Your task to perform on an android device: When is my next meeting? Image 0: 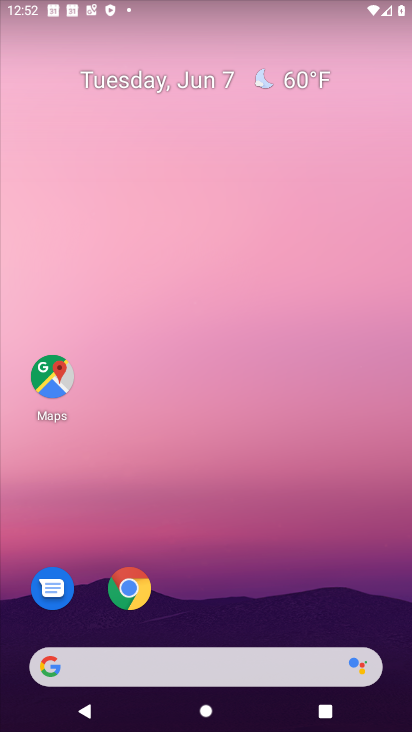
Step 0: drag from (289, 724) to (277, 199)
Your task to perform on an android device: When is my next meeting? Image 1: 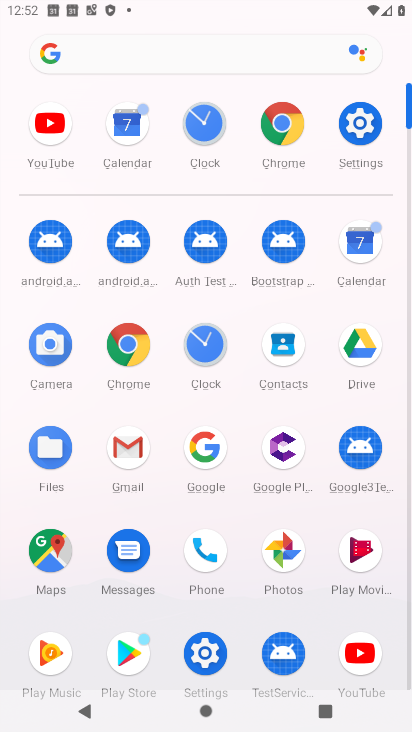
Step 1: click (364, 244)
Your task to perform on an android device: When is my next meeting? Image 2: 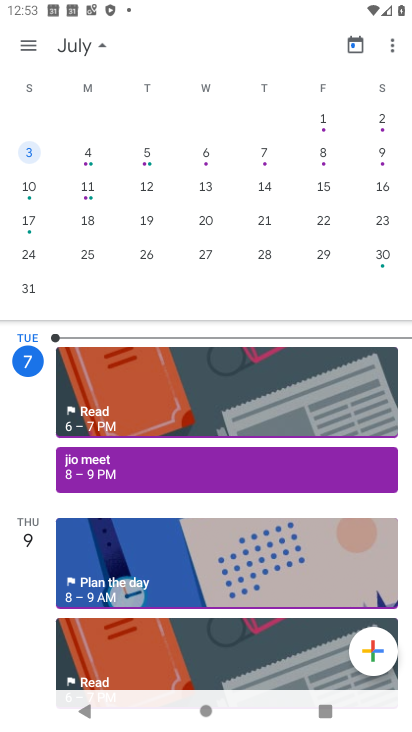
Step 2: drag from (48, 159) to (394, 271)
Your task to perform on an android device: When is my next meeting? Image 3: 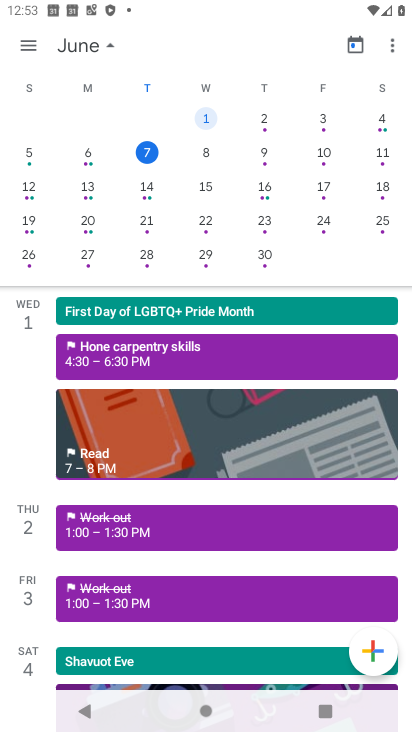
Step 3: click (25, 48)
Your task to perform on an android device: When is my next meeting? Image 4: 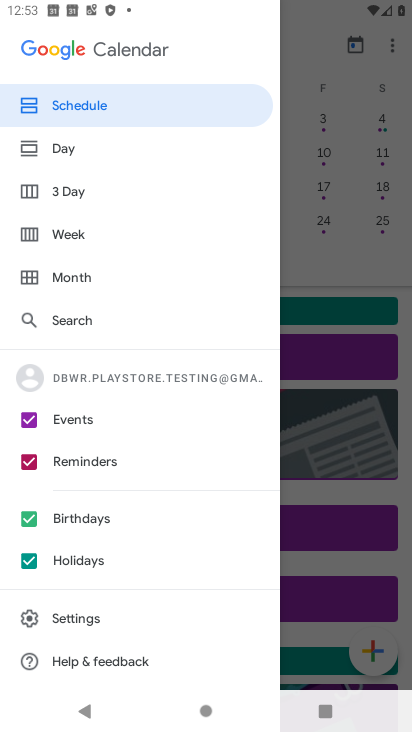
Step 4: click (93, 108)
Your task to perform on an android device: When is my next meeting? Image 5: 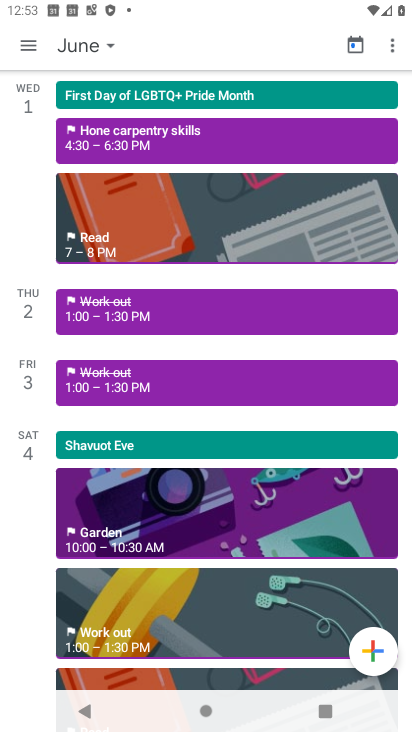
Step 5: task complete